Your task to perform on an android device: See recent photos Image 0: 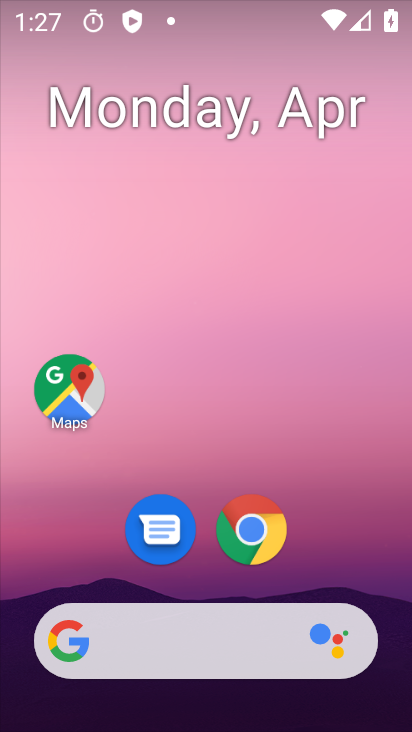
Step 0: drag from (319, 554) to (295, 257)
Your task to perform on an android device: See recent photos Image 1: 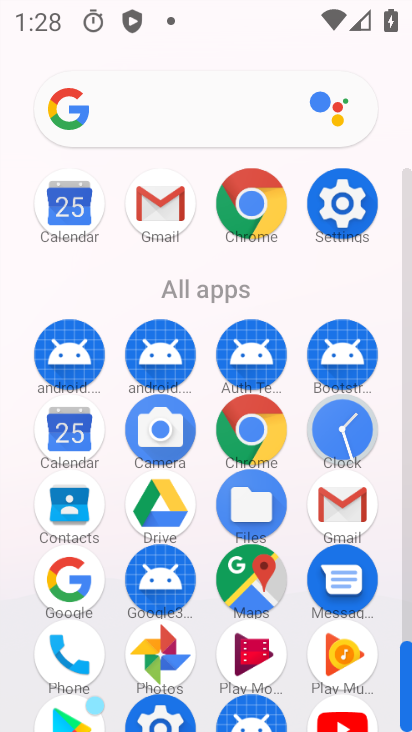
Step 1: click (156, 658)
Your task to perform on an android device: See recent photos Image 2: 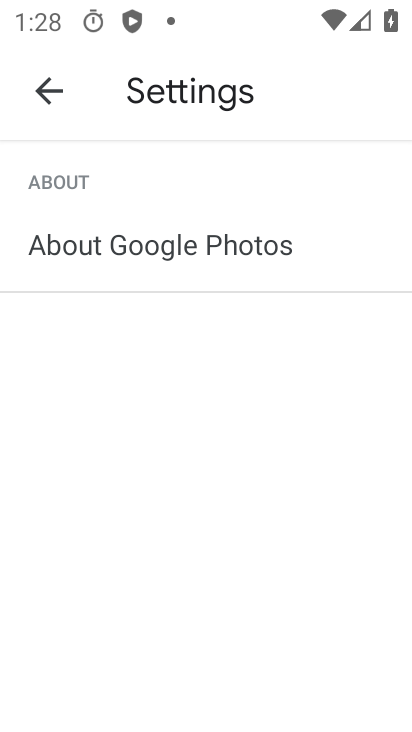
Step 2: click (79, 105)
Your task to perform on an android device: See recent photos Image 3: 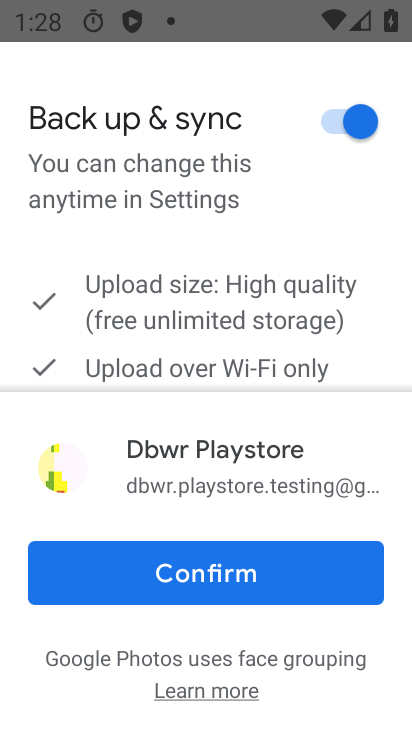
Step 3: click (191, 572)
Your task to perform on an android device: See recent photos Image 4: 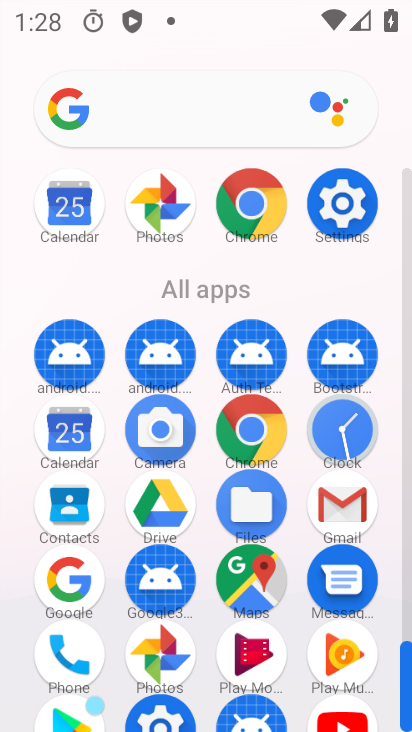
Step 4: click (143, 199)
Your task to perform on an android device: See recent photos Image 5: 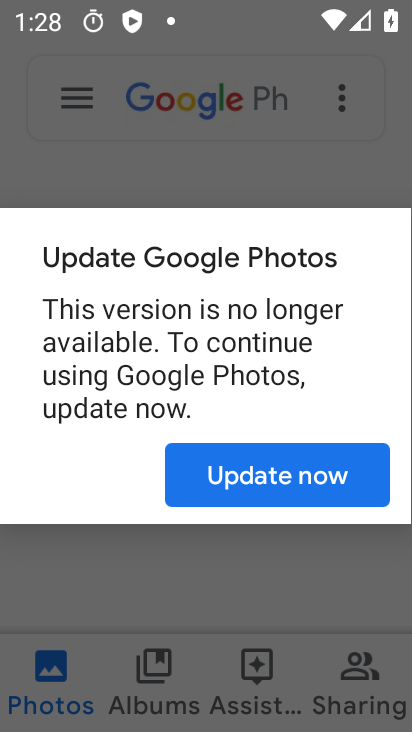
Step 5: click (283, 495)
Your task to perform on an android device: See recent photos Image 6: 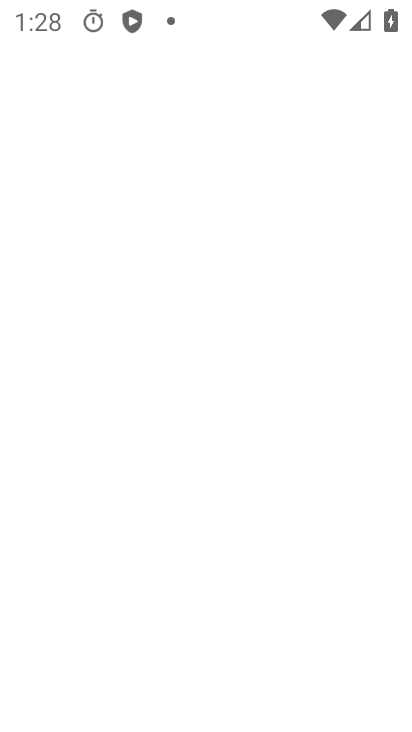
Step 6: press back button
Your task to perform on an android device: See recent photos Image 7: 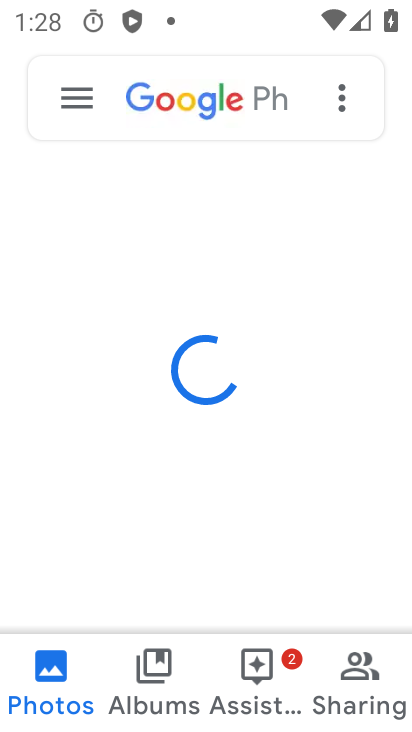
Step 7: click (165, 675)
Your task to perform on an android device: See recent photos Image 8: 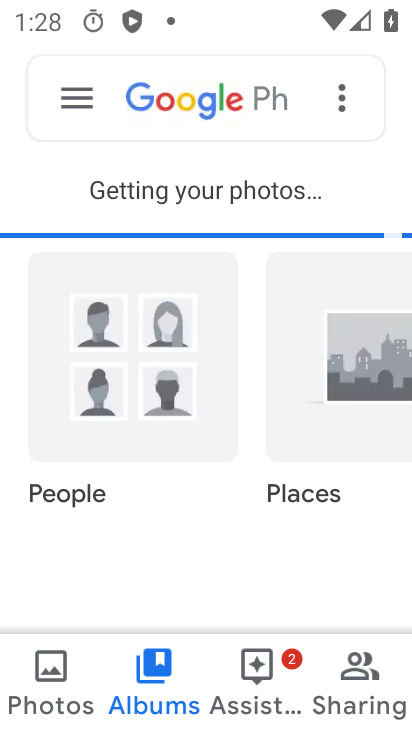
Step 8: click (55, 681)
Your task to perform on an android device: See recent photos Image 9: 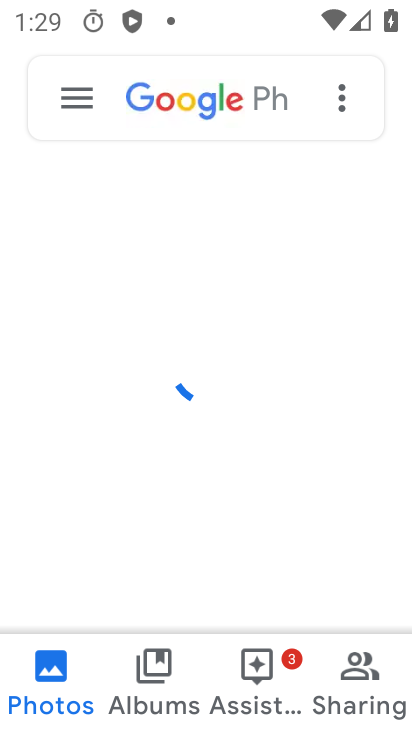
Step 9: click (174, 681)
Your task to perform on an android device: See recent photos Image 10: 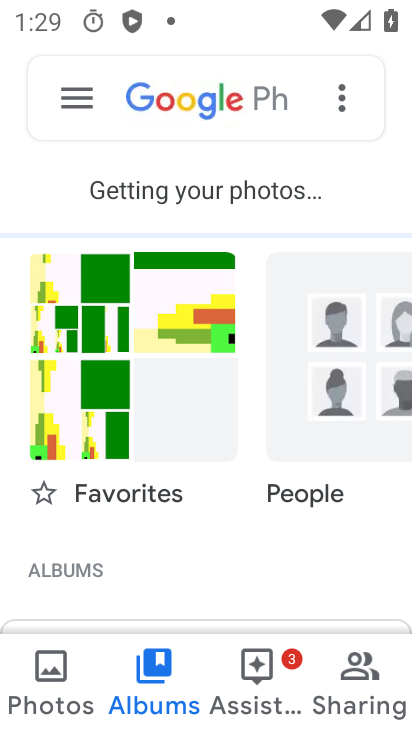
Step 10: click (108, 312)
Your task to perform on an android device: See recent photos Image 11: 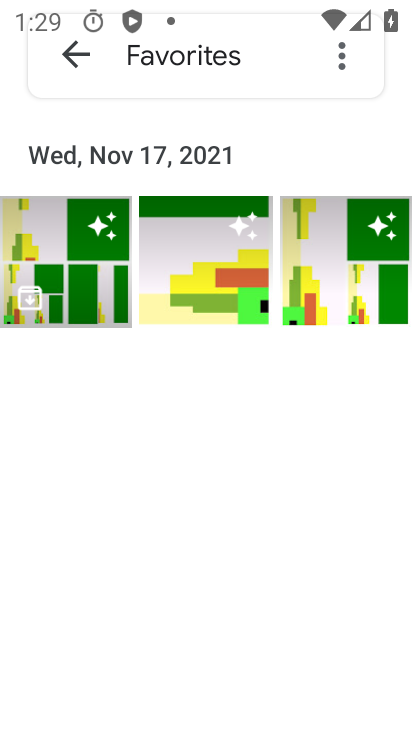
Step 11: task complete